Your task to perform on an android device: Check the news Image 0: 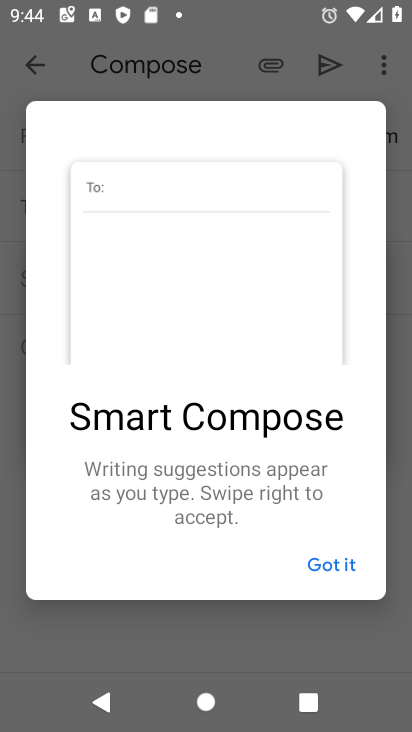
Step 0: click (331, 565)
Your task to perform on an android device: Check the news Image 1: 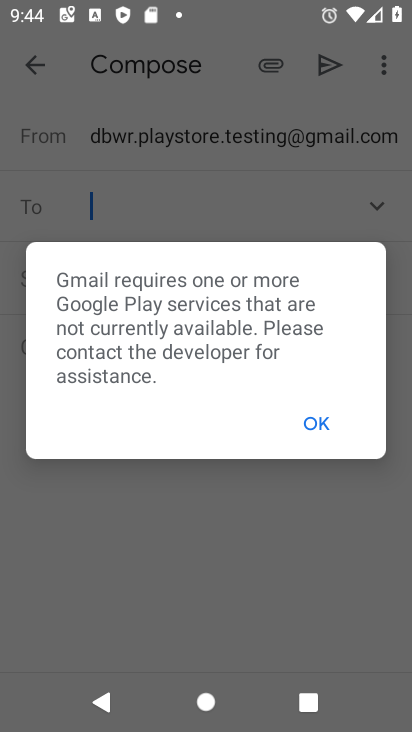
Step 1: press back button
Your task to perform on an android device: Check the news Image 2: 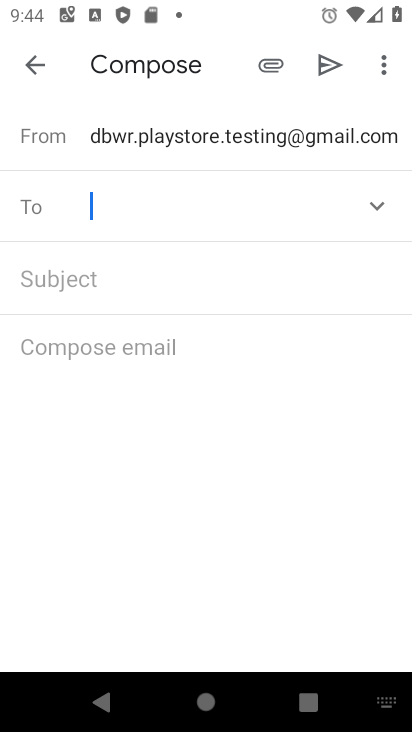
Step 2: press home button
Your task to perform on an android device: Check the news Image 3: 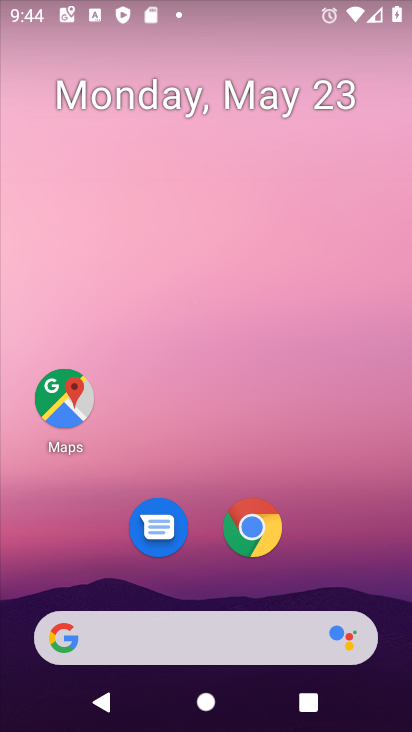
Step 3: drag from (327, 458) to (261, 10)
Your task to perform on an android device: Check the news Image 4: 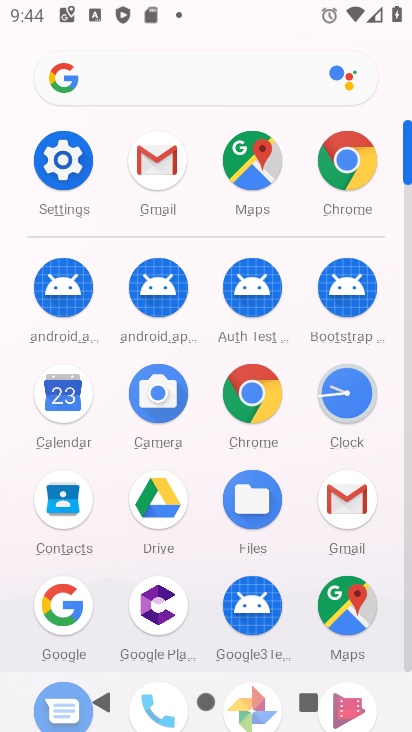
Step 4: drag from (0, 620) to (35, 215)
Your task to perform on an android device: Check the news Image 5: 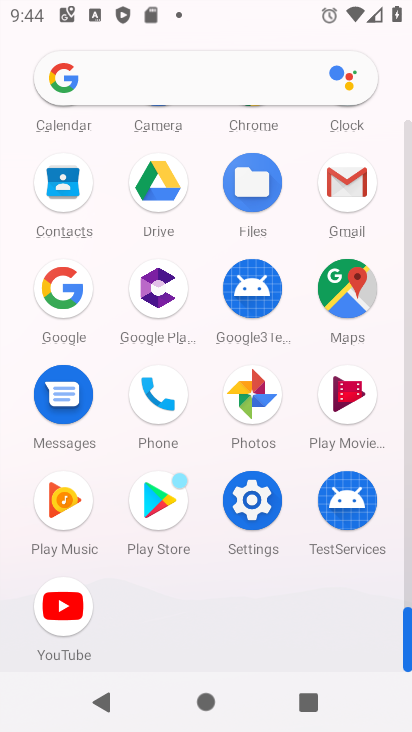
Step 5: drag from (0, 276) to (5, 621)
Your task to perform on an android device: Check the news Image 6: 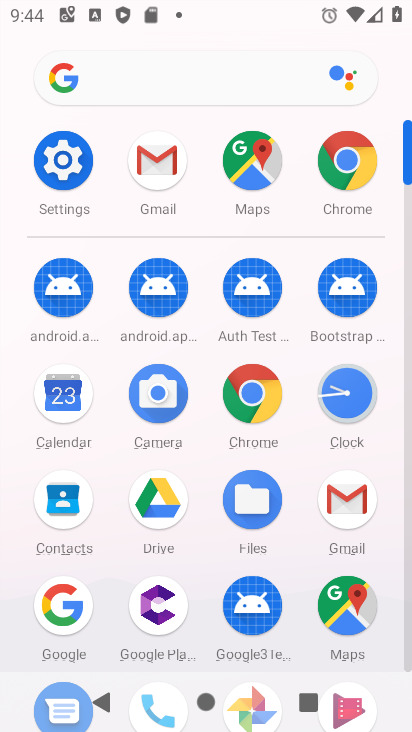
Step 6: click (251, 385)
Your task to perform on an android device: Check the news Image 7: 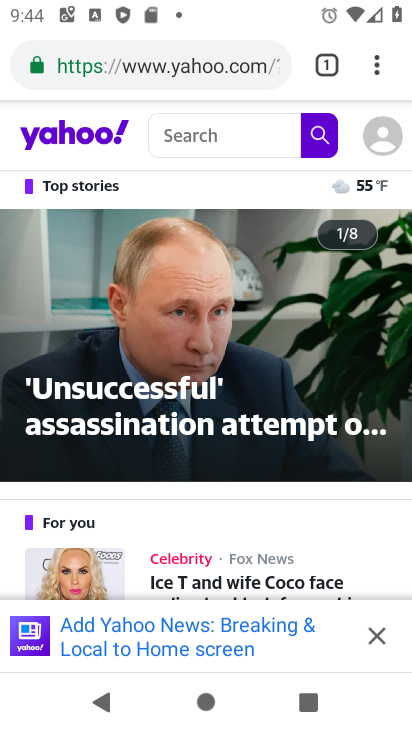
Step 7: click (173, 65)
Your task to perform on an android device: Check the news Image 8: 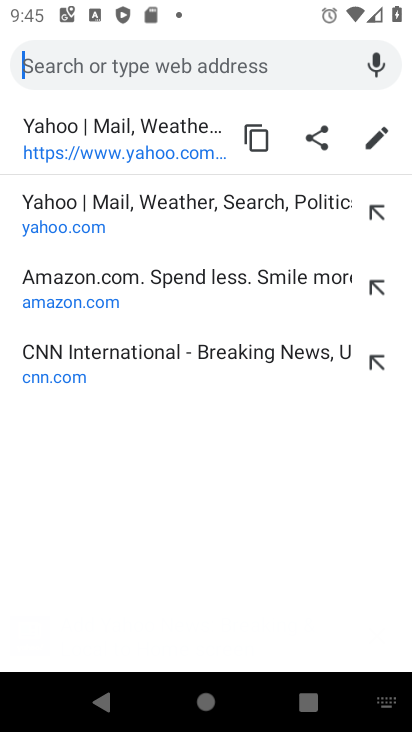
Step 8: type "Check the news"
Your task to perform on an android device: Check the news Image 9: 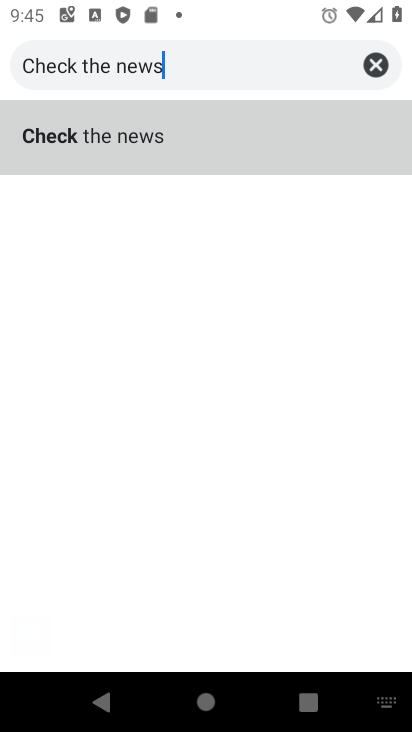
Step 9: click (184, 145)
Your task to perform on an android device: Check the news Image 10: 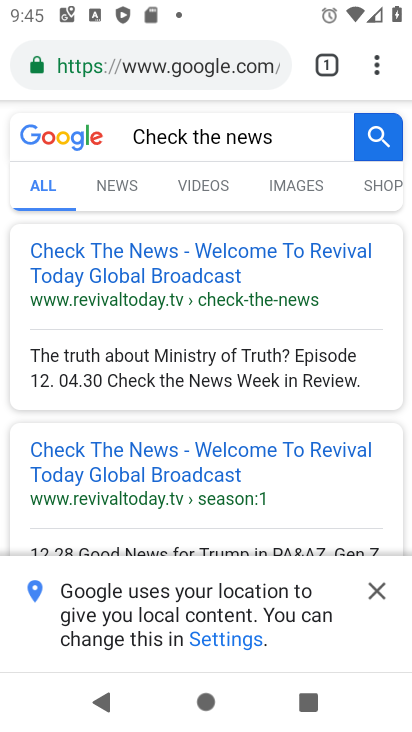
Step 10: click (122, 199)
Your task to perform on an android device: Check the news Image 11: 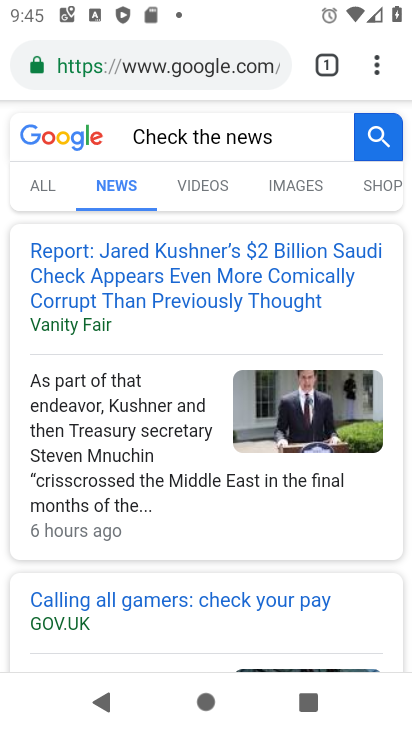
Step 11: task complete